Your task to perform on an android device: What's on my calendar today? Image 0: 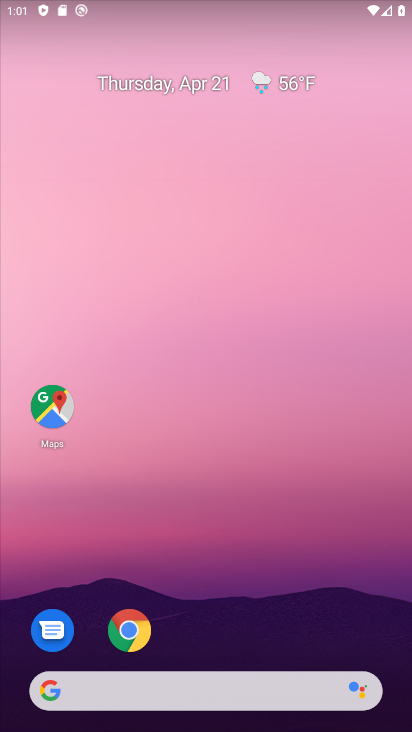
Step 0: drag from (311, 523) to (256, 65)
Your task to perform on an android device: What's on my calendar today? Image 1: 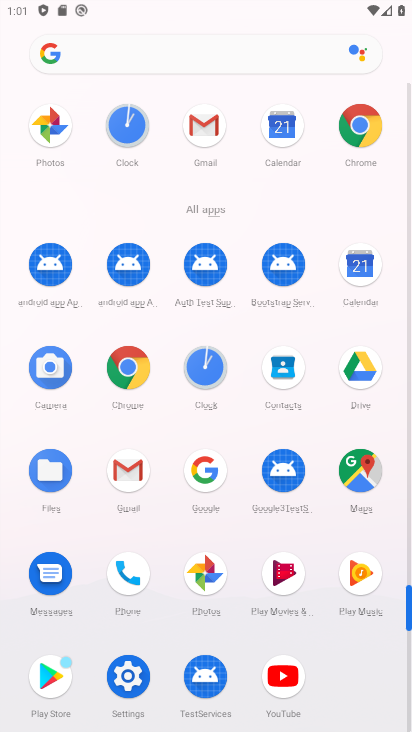
Step 1: click (363, 277)
Your task to perform on an android device: What's on my calendar today? Image 2: 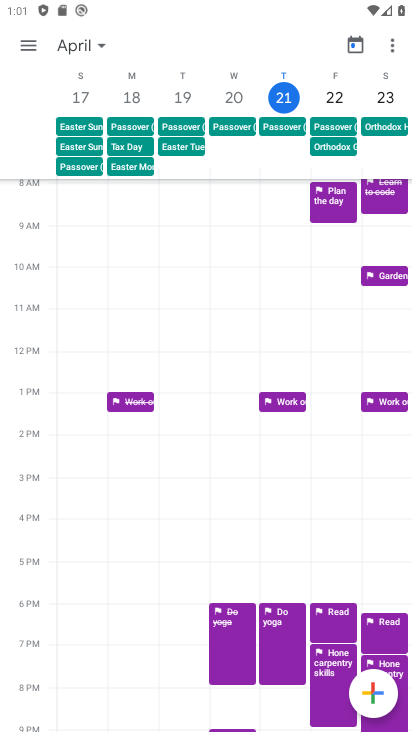
Step 2: click (23, 40)
Your task to perform on an android device: What's on my calendar today? Image 3: 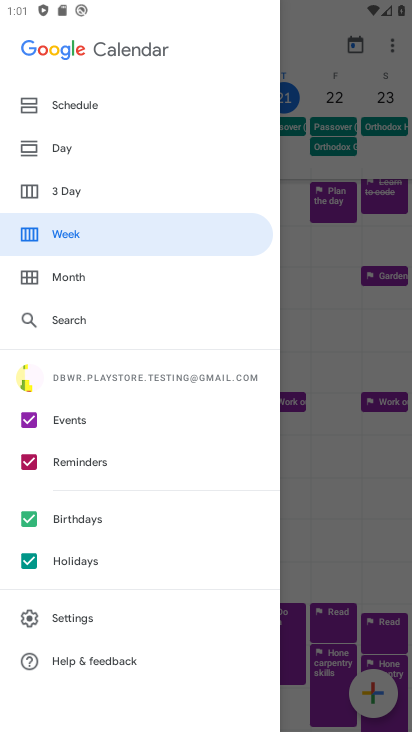
Step 3: click (57, 142)
Your task to perform on an android device: What's on my calendar today? Image 4: 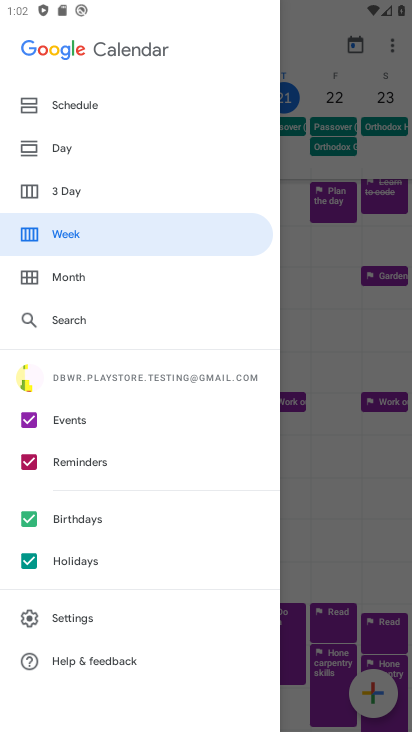
Step 4: click (57, 141)
Your task to perform on an android device: What's on my calendar today? Image 5: 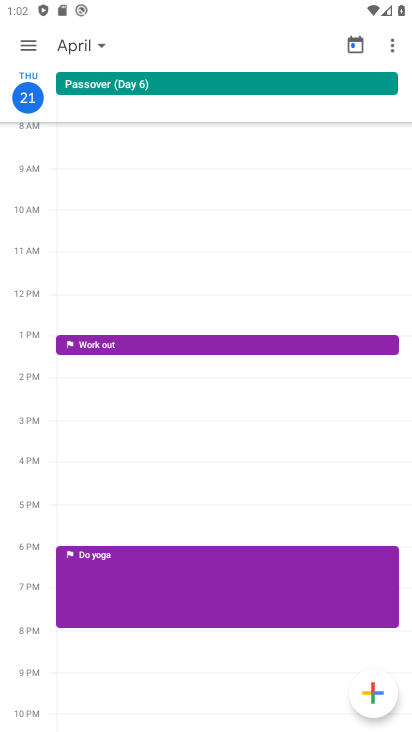
Step 5: task complete